Your task to perform on an android device: see tabs open on other devices in the chrome app Image 0: 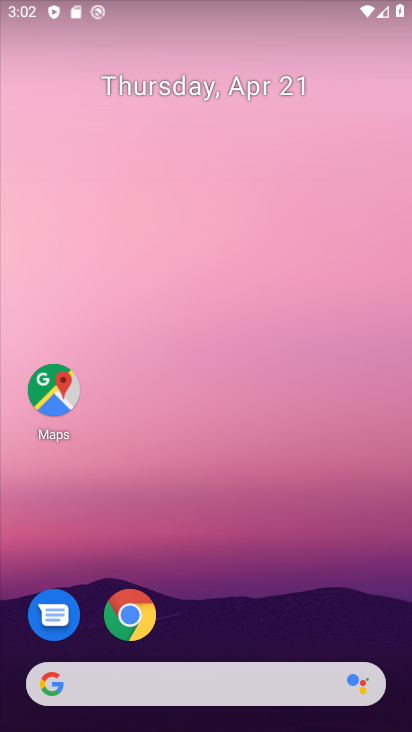
Step 0: drag from (213, 640) to (213, 0)
Your task to perform on an android device: see tabs open on other devices in the chrome app Image 1: 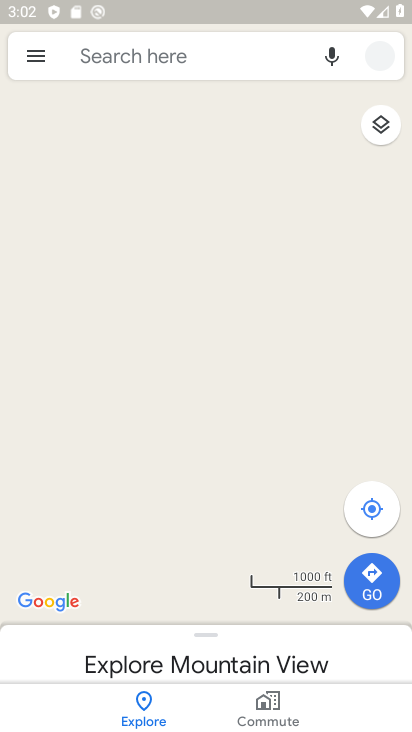
Step 1: press home button
Your task to perform on an android device: see tabs open on other devices in the chrome app Image 2: 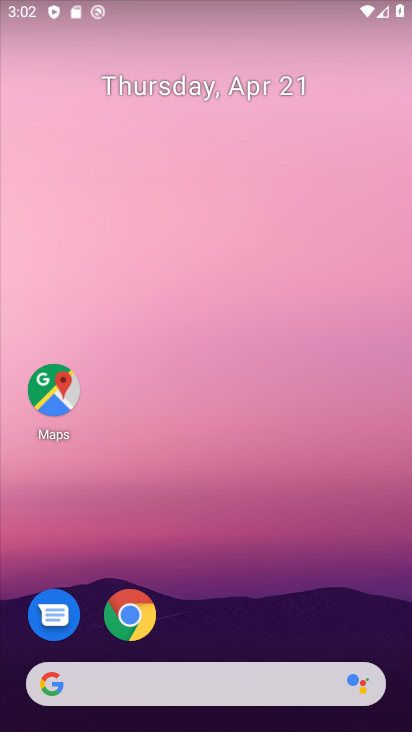
Step 2: click (125, 608)
Your task to perform on an android device: see tabs open on other devices in the chrome app Image 3: 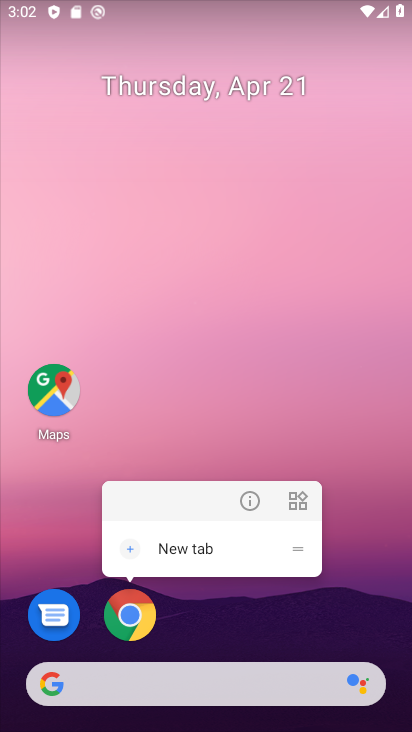
Step 3: click (126, 608)
Your task to perform on an android device: see tabs open on other devices in the chrome app Image 4: 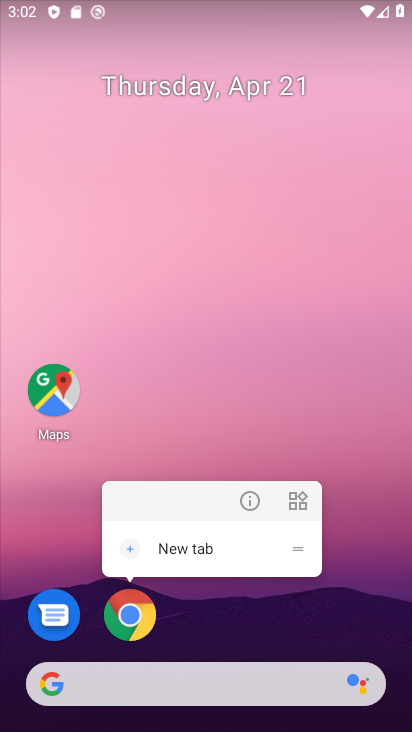
Step 4: click (126, 608)
Your task to perform on an android device: see tabs open on other devices in the chrome app Image 5: 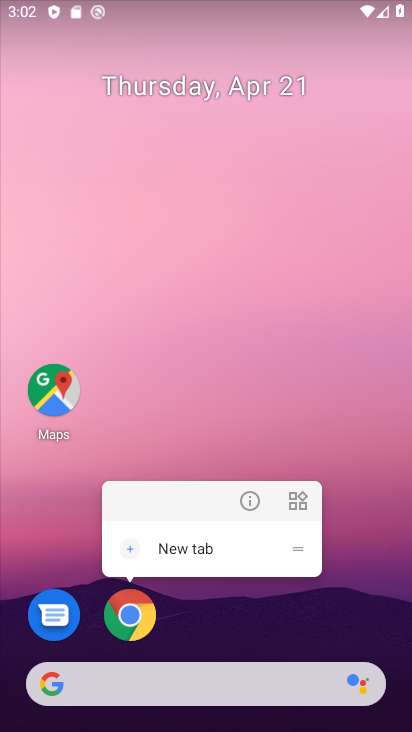
Step 5: click (126, 608)
Your task to perform on an android device: see tabs open on other devices in the chrome app Image 6: 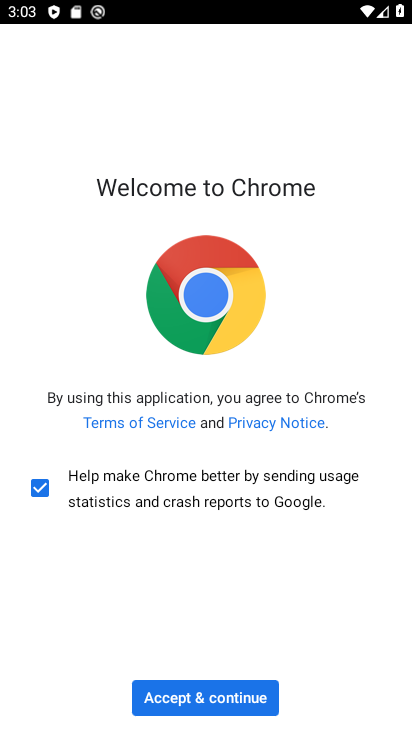
Step 6: click (200, 689)
Your task to perform on an android device: see tabs open on other devices in the chrome app Image 7: 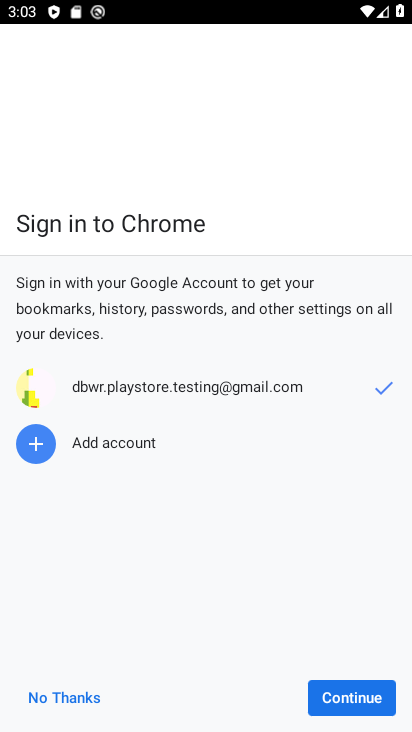
Step 7: click (353, 696)
Your task to perform on an android device: see tabs open on other devices in the chrome app Image 8: 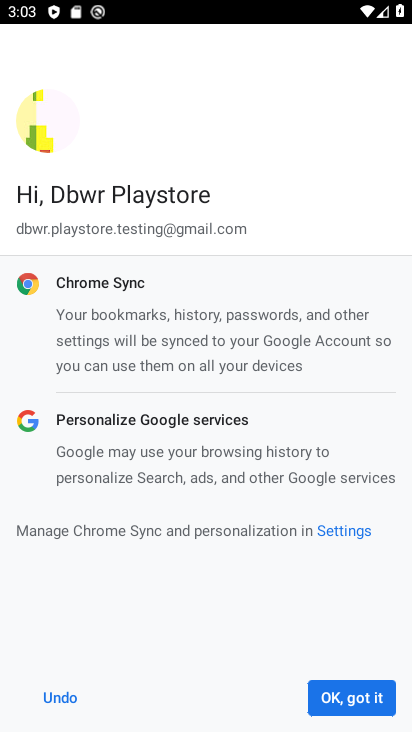
Step 8: click (353, 696)
Your task to perform on an android device: see tabs open on other devices in the chrome app Image 9: 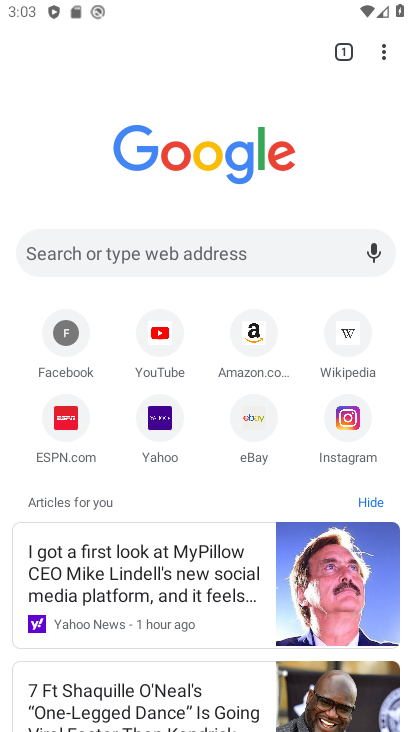
Step 9: click (385, 49)
Your task to perform on an android device: see tabs open on other devices in the chrome app Image 10: 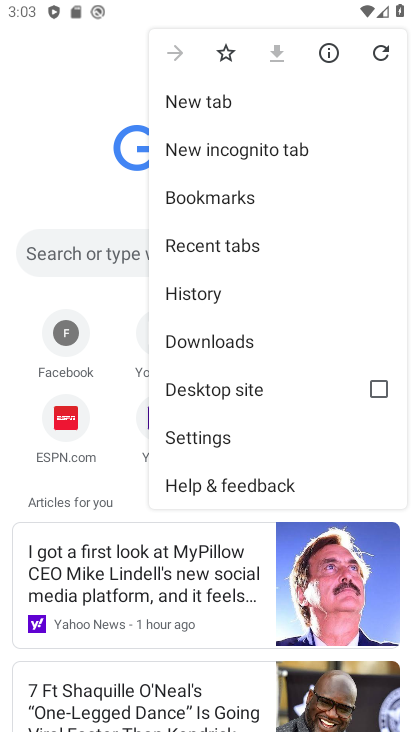
Step 10: click (269, 241)
Your task to perform on an android device: see tabs open on other devices in the chrome app Image 11: 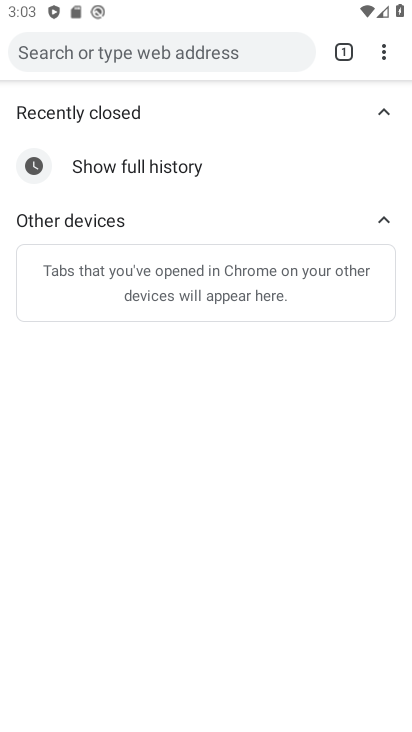
Step 11: task complete